Your task to perform on an android device: Set the phone to "Do not disturb". Image 0: 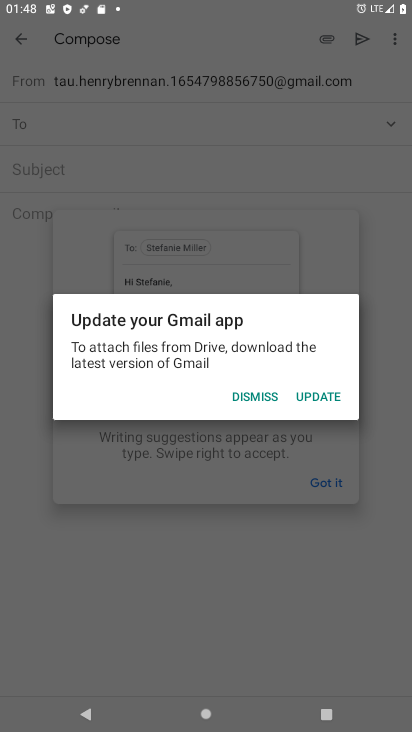
Step 0: press home button
Your task to perform on an android device: Set the phone to "Do not disturb". Image 1: 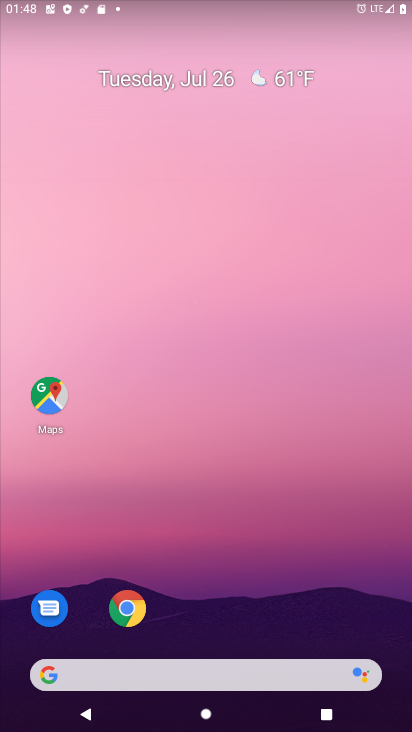
Step 1: drag from (219, 2) to (408, 442)
Your task to perform on an android device: Set the phone to "Do not disturb". Image 2: 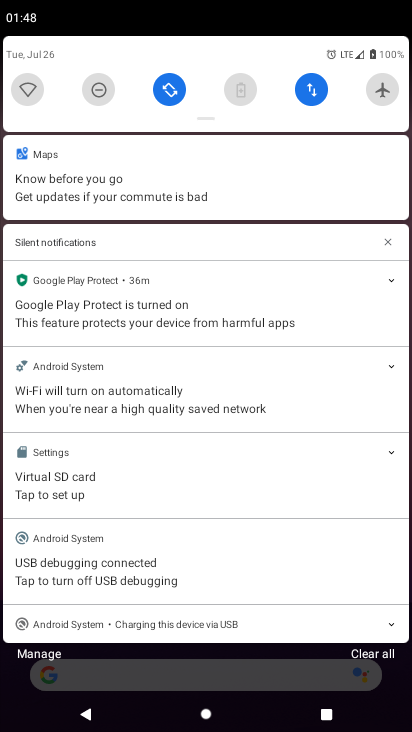
Step 2: click (93, 88)
Your task to perform on an android device: Set the phone to "Do not disturb". Image 3: 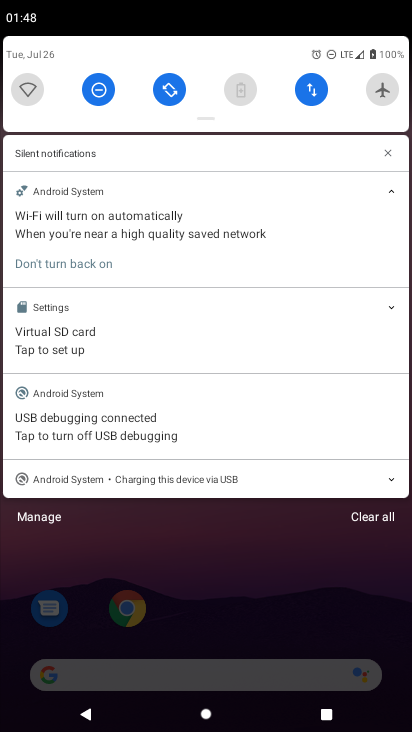
Step 3: task complete